Your task to perform on an android device: Turn off the flashlight Image 0: 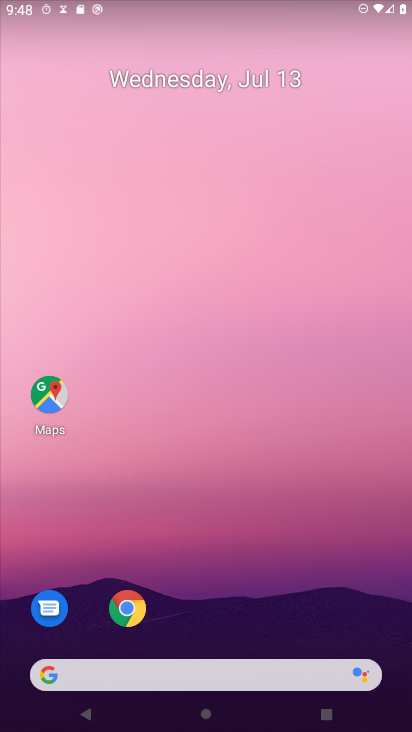
Step 0: drag from (318, 592) to (194, 126)
Your task to perform on an android device: Turn off the flashlight Image 1: 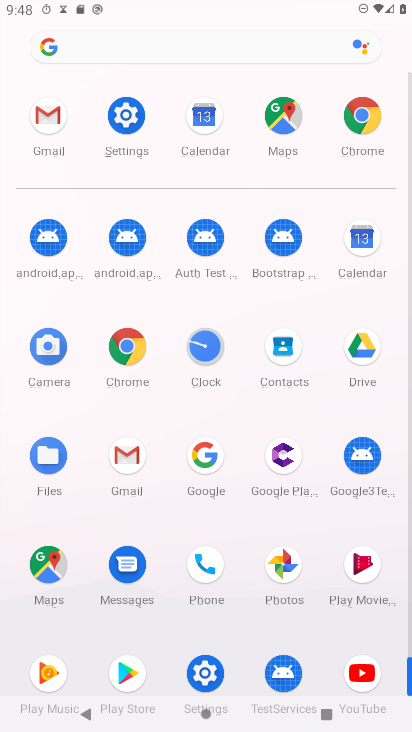
Step 1: task complete